Your task to perform on an android device: Open the web browser Image 0: 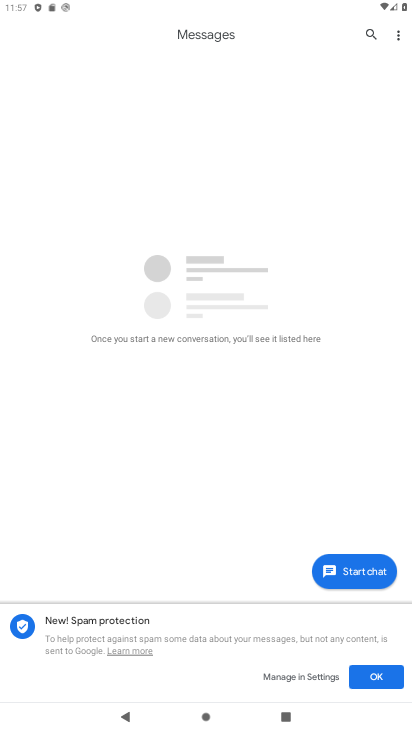
Step 0: press home button
Your task to perform on an android device: Open the web browser Image 1: 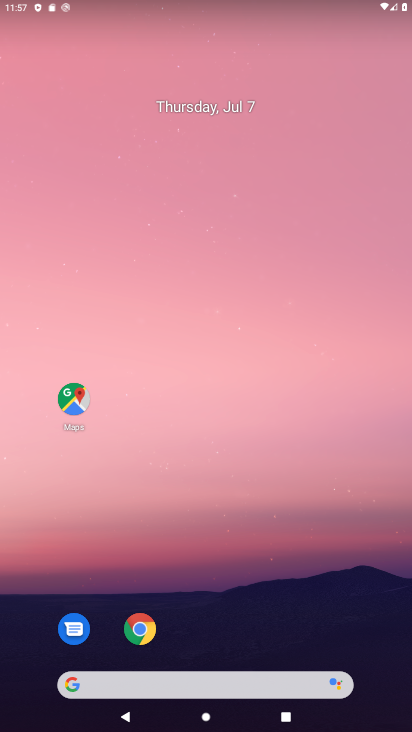
Step 1: click (123, 633)
Your task to perform on an android device: Open the web browser Image 2: 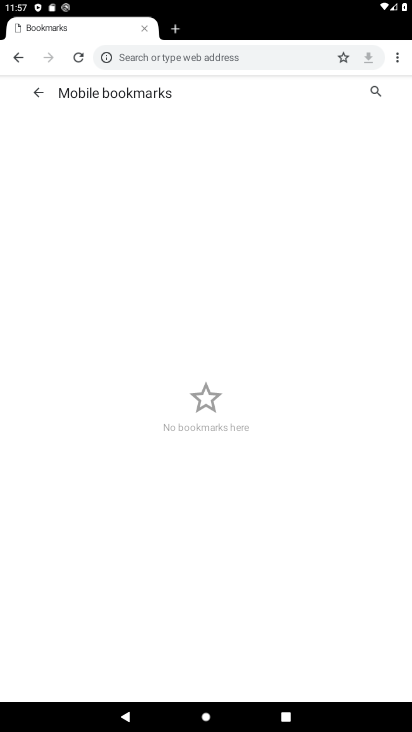
Step 2: click (147, 29)
Your task to perform on an android device: Open the web browser Image 3: 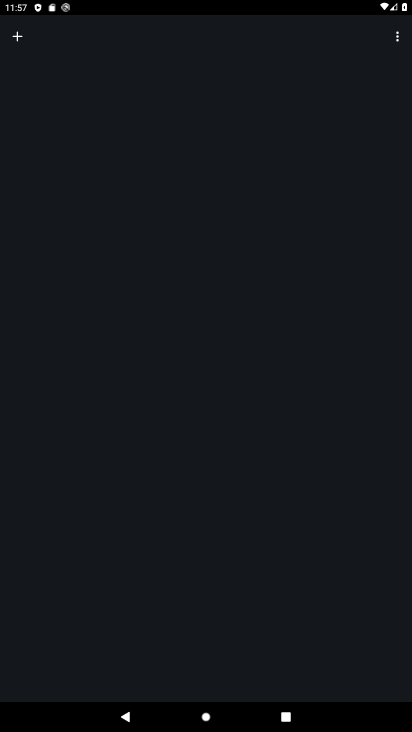
Step 3: click (9, 43)
Your task to perform on an android device: Open the web browser Image 4: 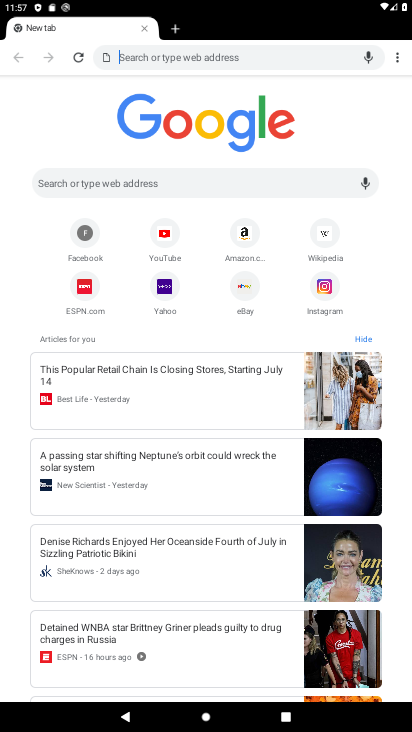
Step 4: task complete